Your task to perform on an android device: remove spam from my inbox in the gmail app Image 0: 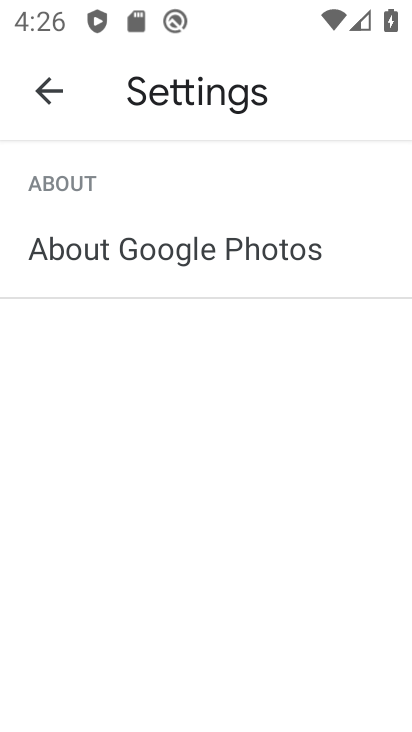
Step 0: press home button
Your task to perform on an android device: remove spam from my inbox in the gmail app Image 1: 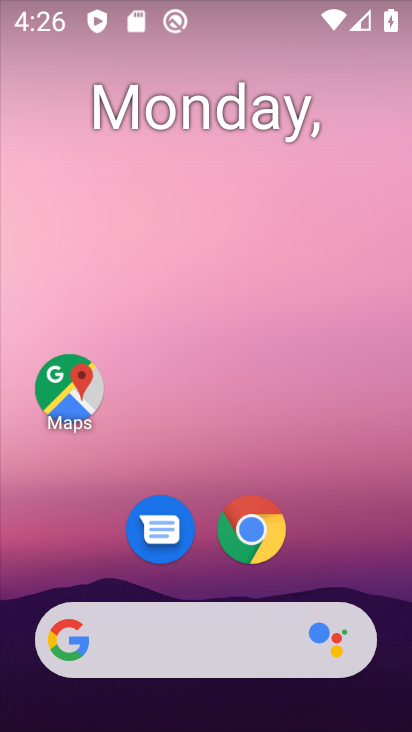
Step 1: drag from (236, 583) to (279, 10)
Your task to perform on an android device: remove spam from my inbox in the gmail app Image 2: 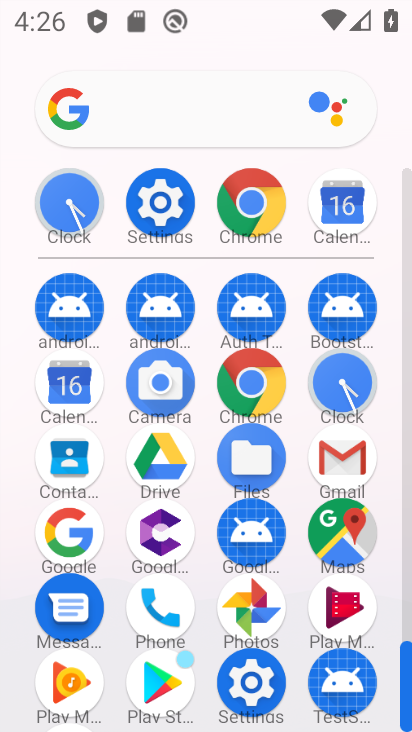
Step 2: click (333, 462)
Your task to perform on an android device: remove spam from my inbox in the gmail app Image 3: 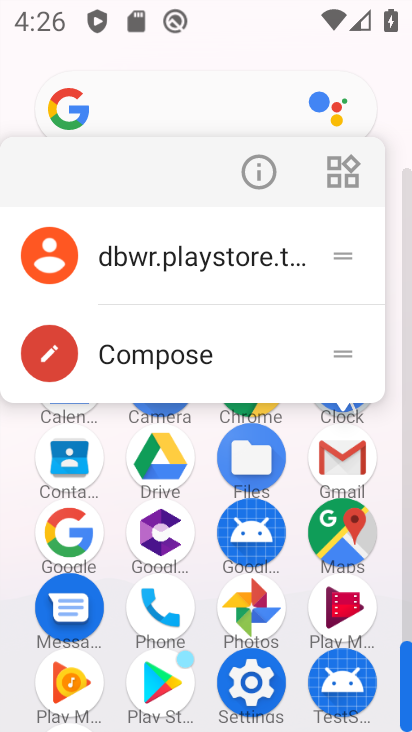
Step 3: click (409, 444)
Your task to perform on an android device: remove spam from my inbox in the gmail app Image 4: 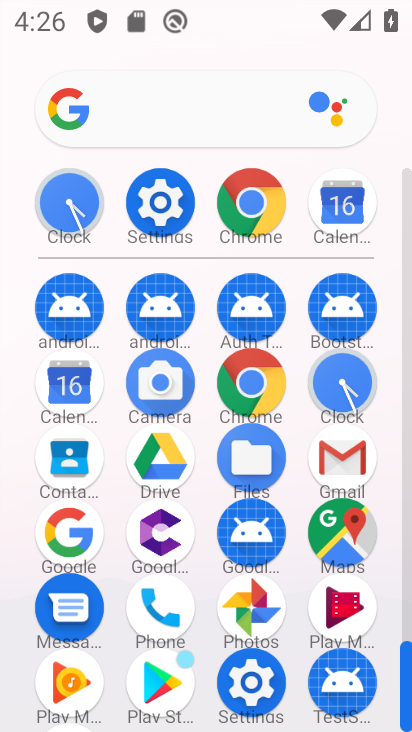
Step 4: click (334, 467)
Your task to perform on an android device: remove spam from my inbox in the gmail app Image 5: 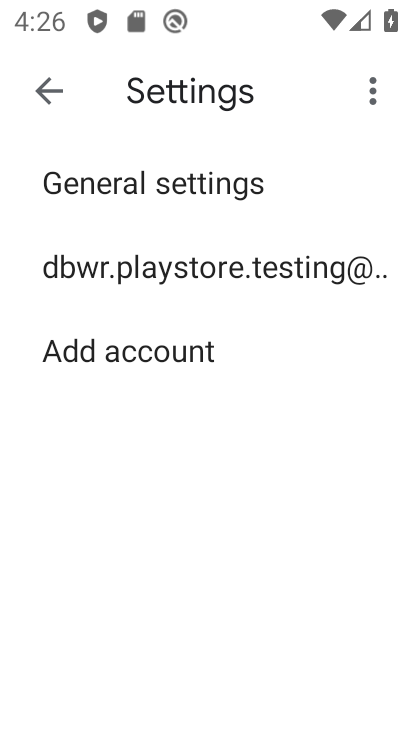
Step 5: click (35, 76)
Your task to perform on an android device: remove spam from my inbox in the gmail app Image 6: 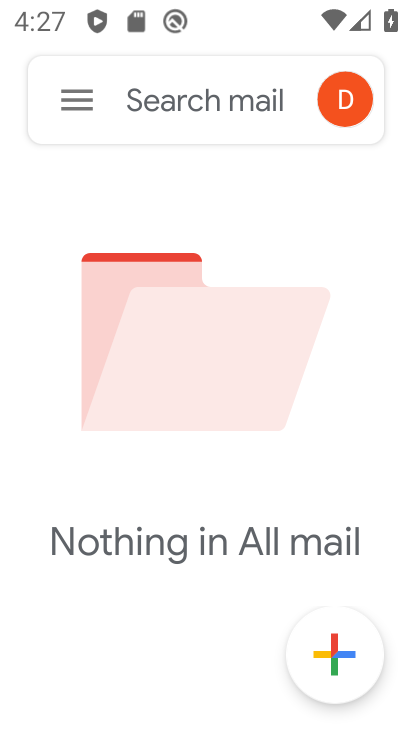
Step 6: click (76, 96)
Your task to perform on an android device: remove spam from my inbox in the gmail app Image 7: 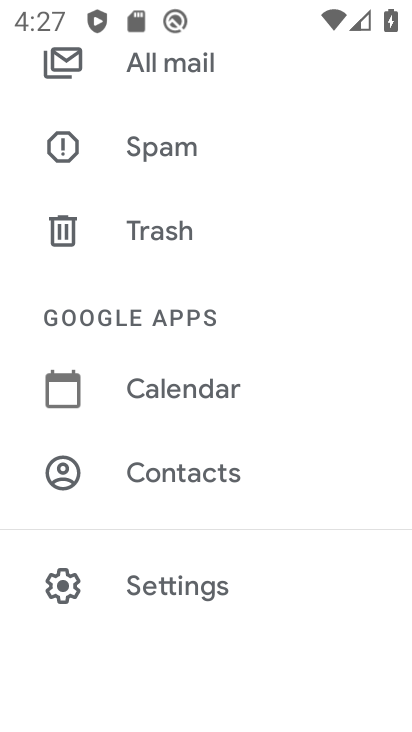
Step 7: click (149, 165)
Your task to perform on an android device: remove spam from my inbox in the gmail app Image 8: 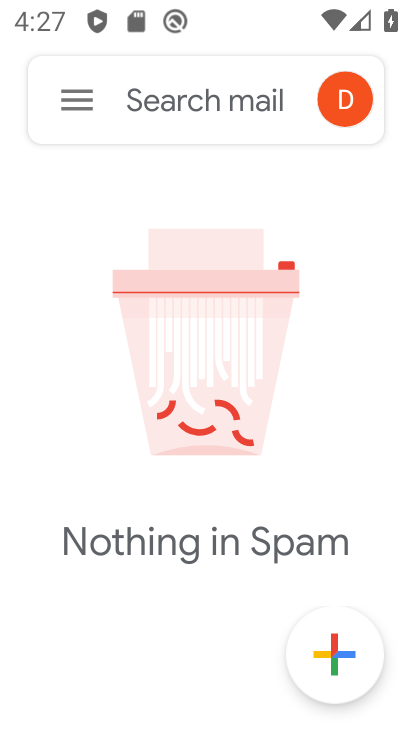
Step 8: task complete